Your task to perform on an android device: Go to Google Image 0: 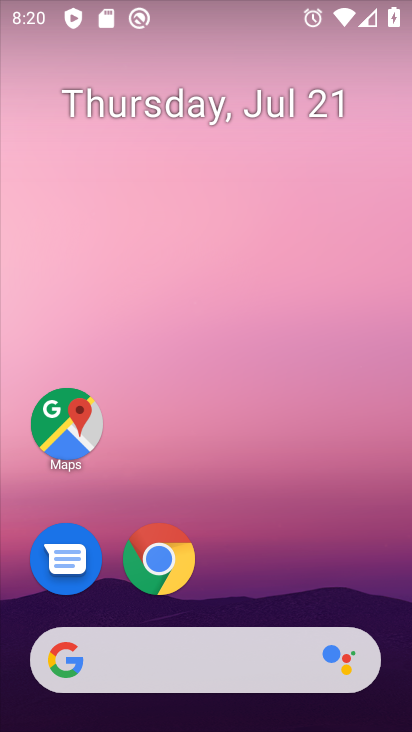
Step 0: drag from (320, 571) to (329, 141)
Your task to perform on an android device: Go to Google Image 1: 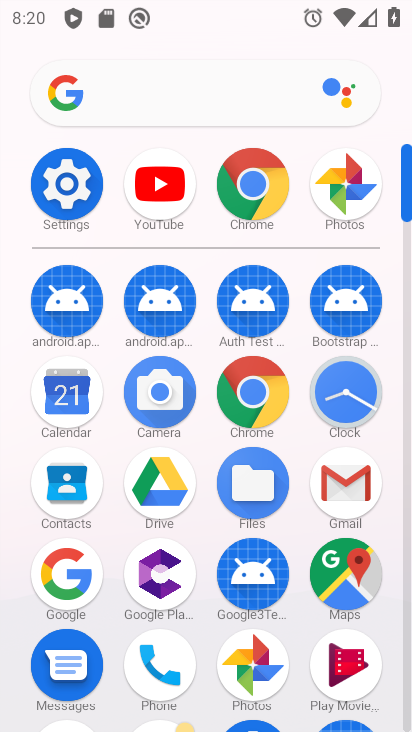
Step 1: click (73, 575)
Your task to perform on an android device: Go to Google Image 2: 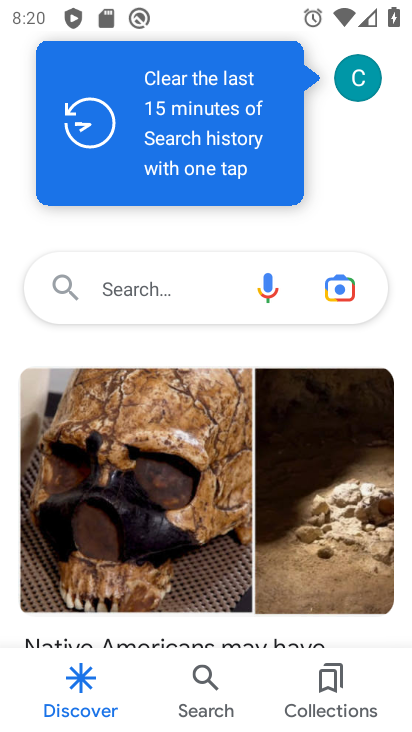
Step 2: task complete